Your task to perform on an android device: Open the Play Movies app and select the watchlist tab. Image 0: 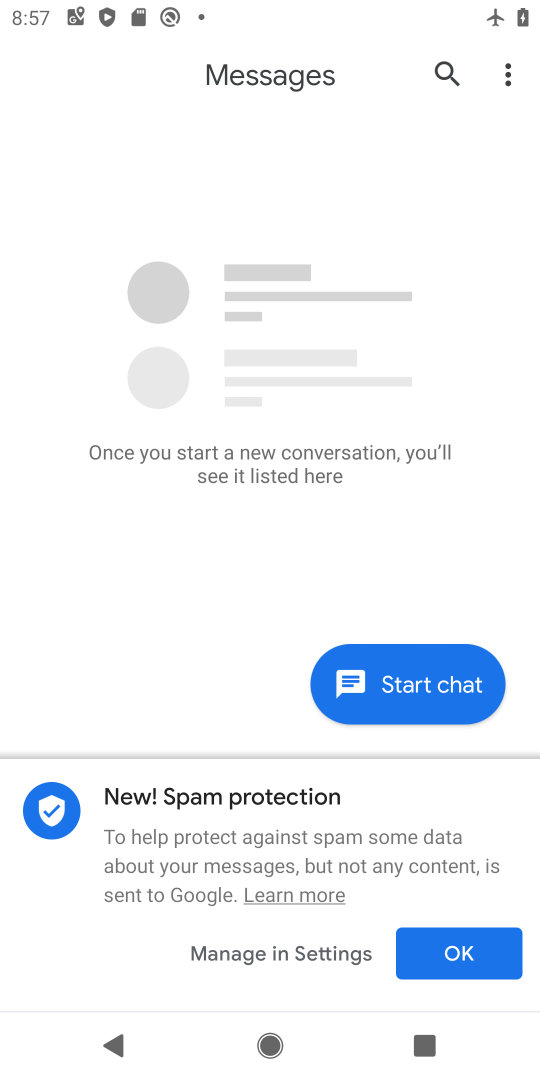
Step 0: press home button
Your task to perform on an android device: Open the Play Movies app and select the watchlist tab. Image 1: 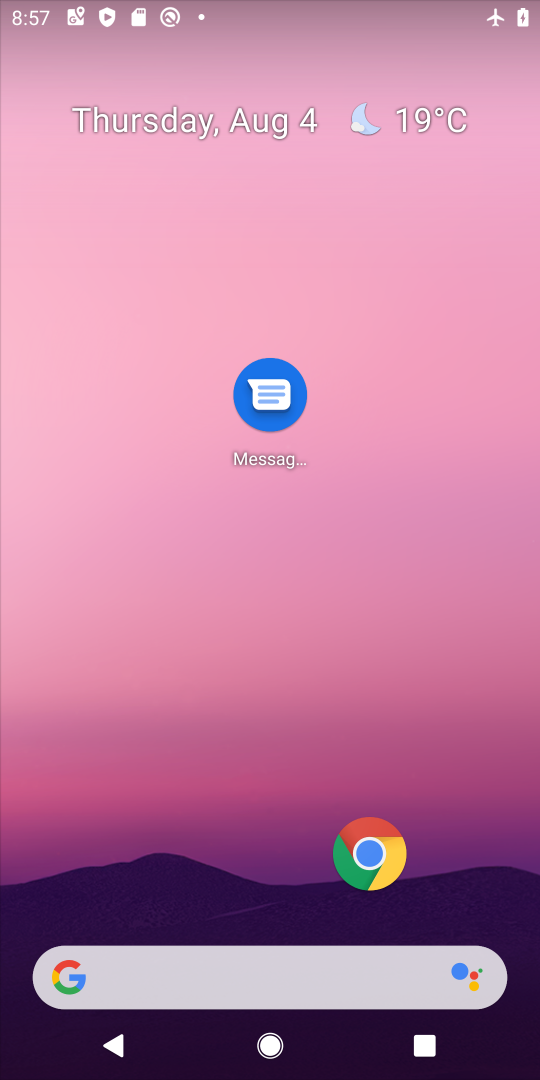
Step 1: drag from (227, 946) to (202, 626)
Your task to perform on an android device: Open the Play Movies app and select the watchlist tab. Image 2: 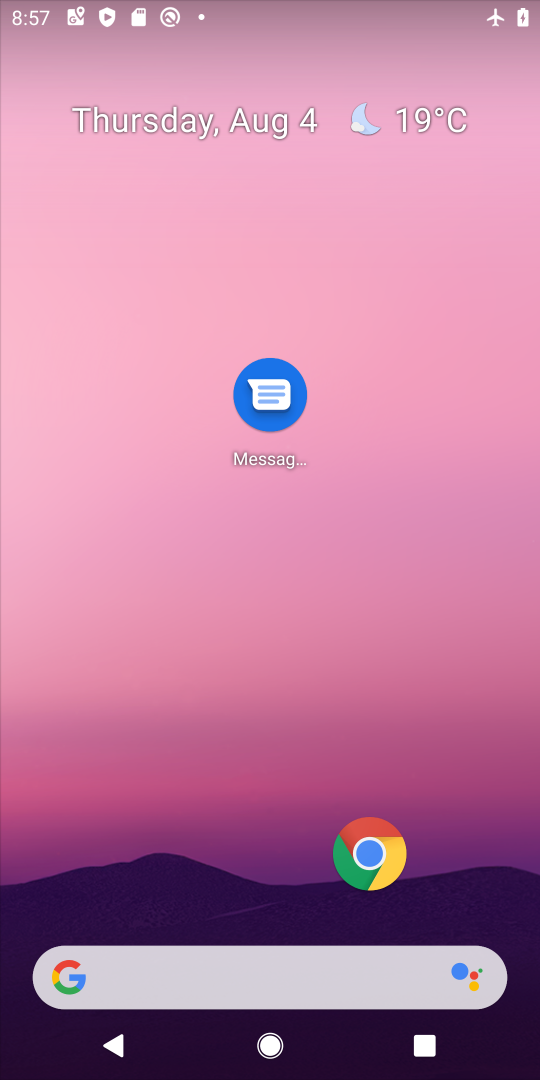
Step 2: drag from (254, 929) to (193, 250)
Your task to perform on an android device: Open the Play Movies app and select the watchlist tab. Image 3: 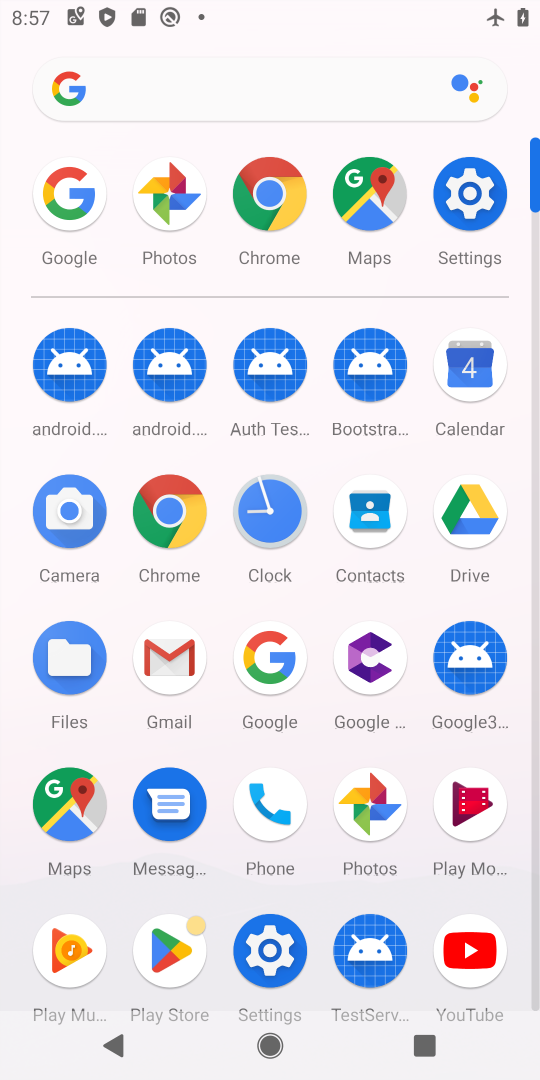
Step 3: click (462, 814)
Your task to perform on an android device: Open the Play Movies app and select the watchlist tab. Image 4: 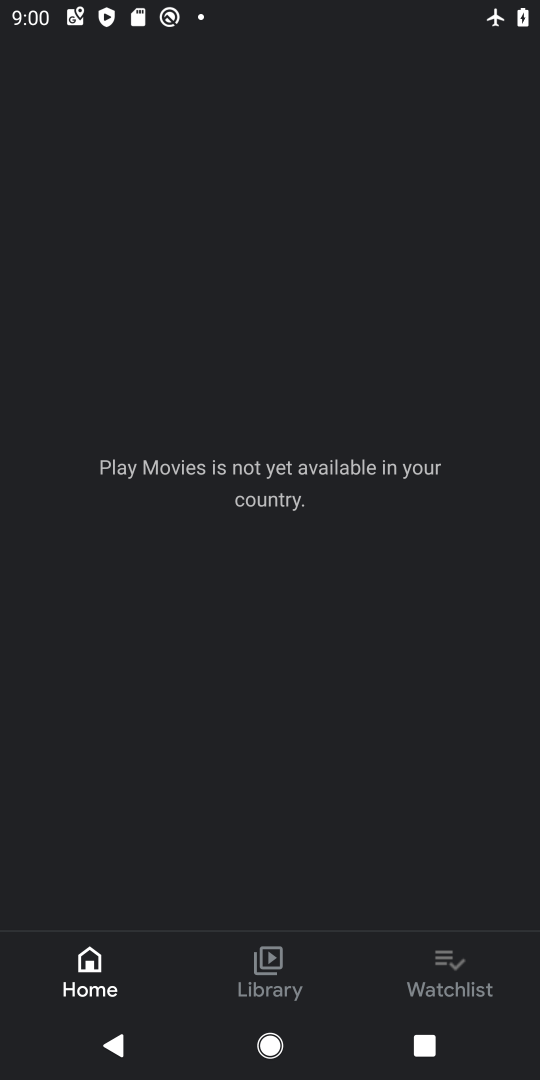
Step 4: click (415, 986)
Your task to perform on an android device: Open the Play Movies app and select the watchlist tab. Image 5: 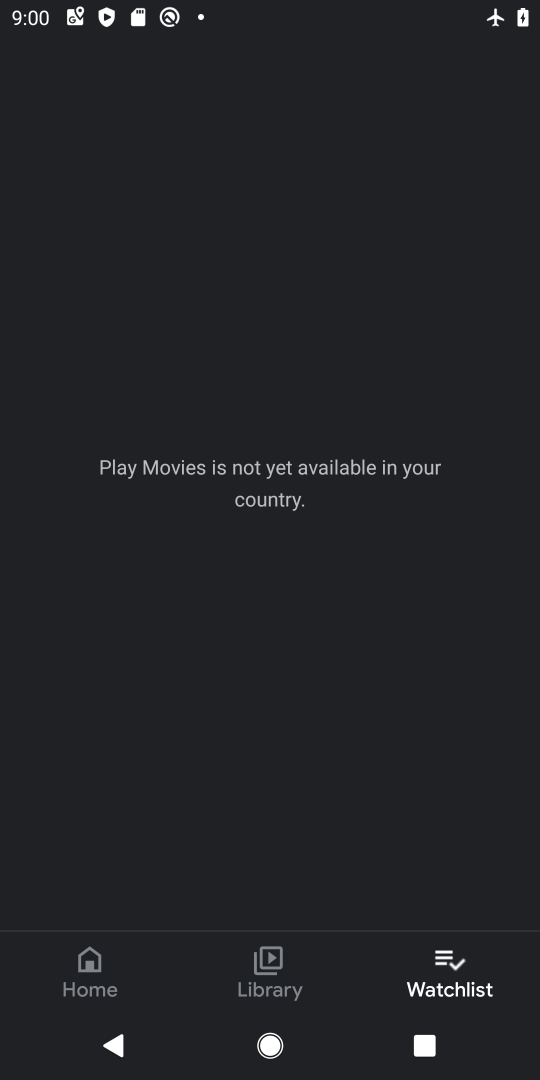
Step 5: task complete